Your task to perform on an android device: open chrome privacy settings Image 0: 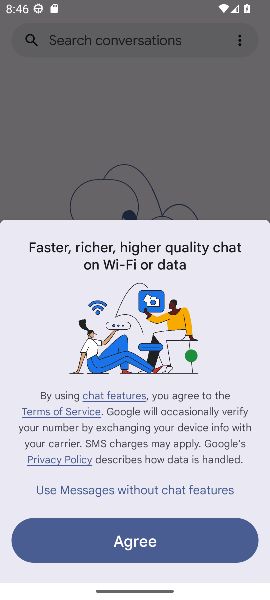
Step 0: press home button
Your task to perform on an android device: open chrome privacy settings Image 1: 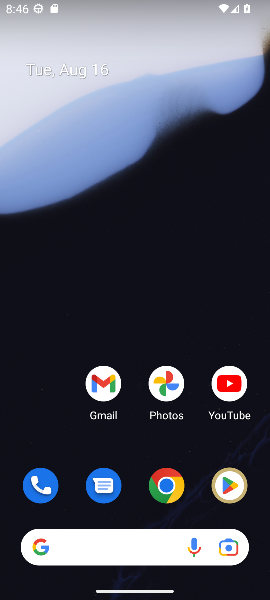
Step 1: click (174, 485)
Your task to perform on an android device: open chrome privacy settings Image 2: 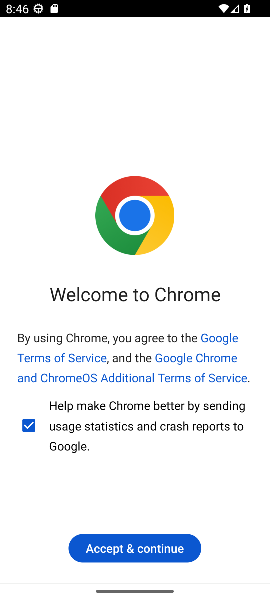
Step 2: click (182, 544)
Your task to perform on an android device: open chrome privacy settings Image 3: 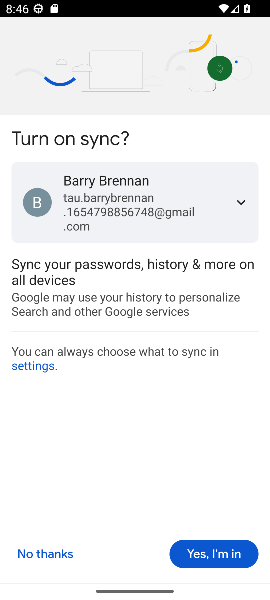
Step 3: click (196, 554)
Your task to perform on an android device: open chrome privacy settings Image 4: 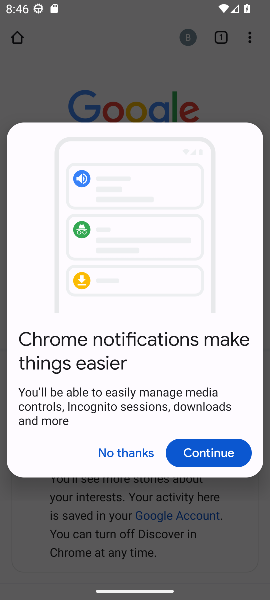
Step 4: click (203, 450)
Your task to perform on an android device: open chrome privacy settings Image 5: 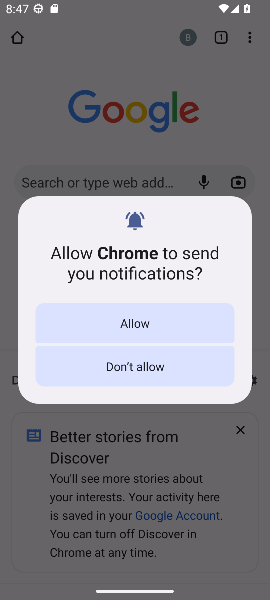
Step 5: click (165, 328)
Your task to perform on an android device: open chrome privacy settings Image 6: 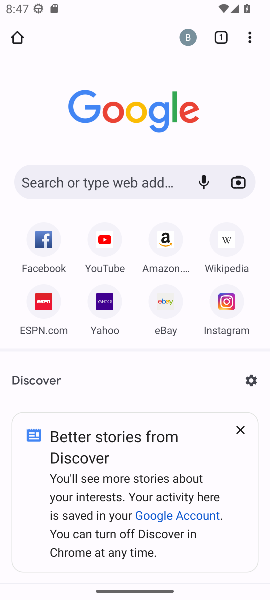
Step 6: click (249, 42)
Your task to perform on an android device: open chrome privacy settings Image 7: 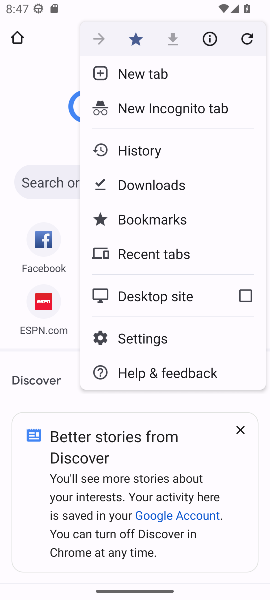
Step 7: click (149, 345)
Your task to perform on an android device: open chrome privacy settings Image 8: 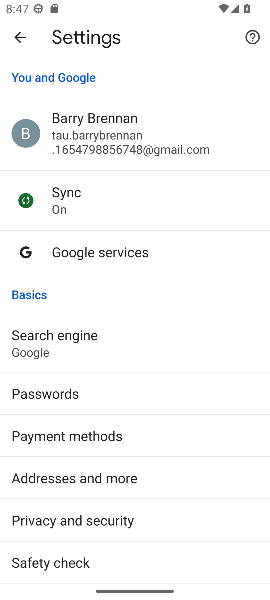
Step 8: drag from (116, 488) to (101, 221)
Your task to perform on an android device: open chrome privacy settings Image 9: 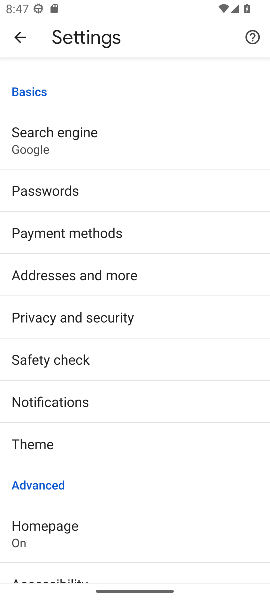
Step 9: click (119, 322)
Your task to perform on an android device: open chrome privacy settings Image 10: 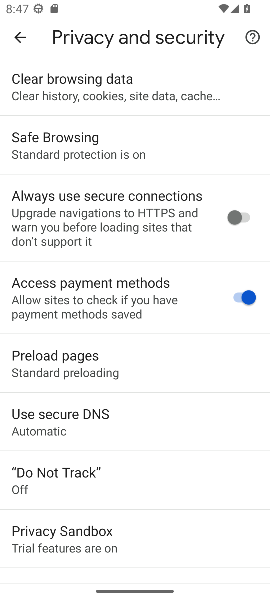
Step 10: task complete